Your task to perform on an android device: turn on location history Image 0: 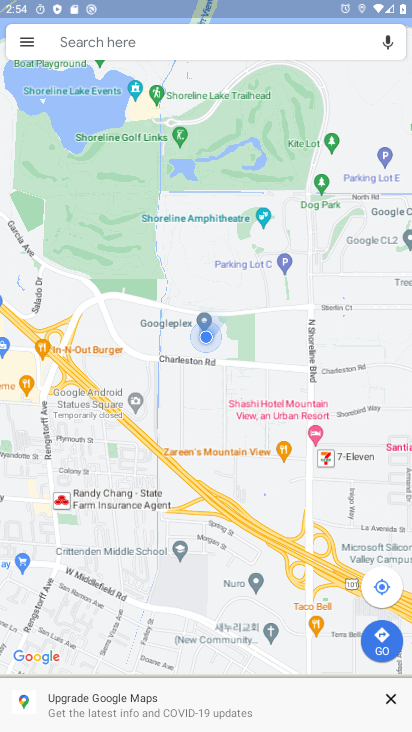
Step 0: press back button
Your task to perform on an android device: turn on location history Image 1: 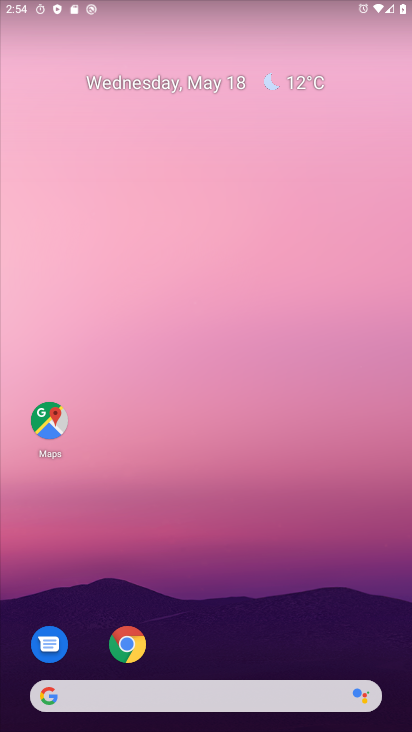
Step 1: drag from (388, 630) to (297, 270)
Your task to perform on an android device: turn on location history Image 2: 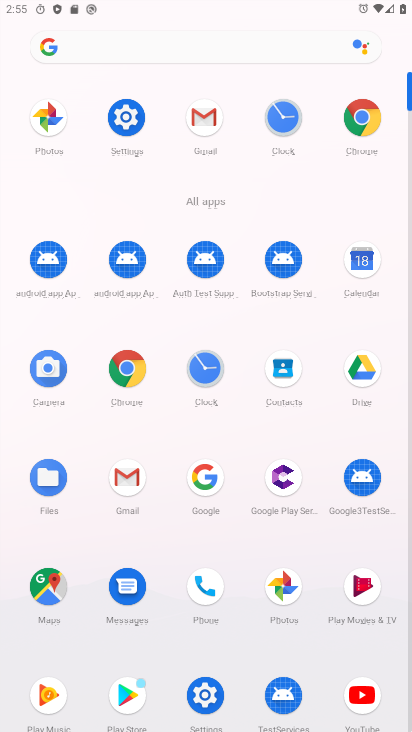
Step 2: click (123, 116)
Your task to perform on an android device: turn on location history Image 3: 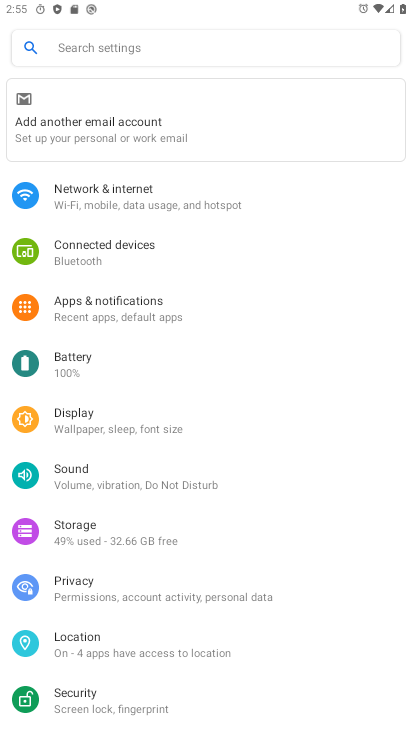
Step 3: click (75, 648)
Your task to perform on an android device: turn on location history Image 4: 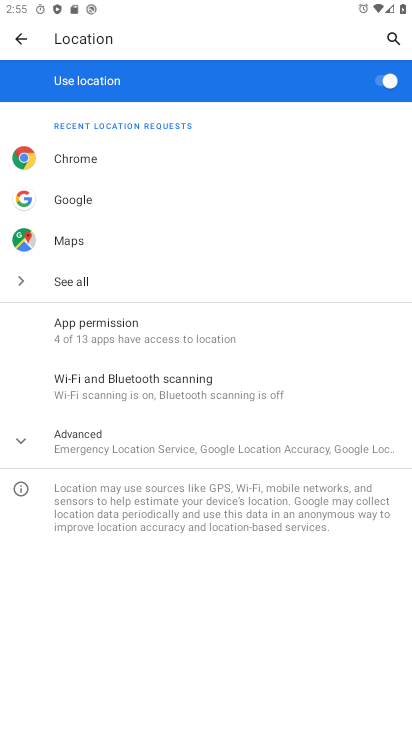
Step 4: click (37, 437)
Your task to perform on an android device: turn on location history Image 5: 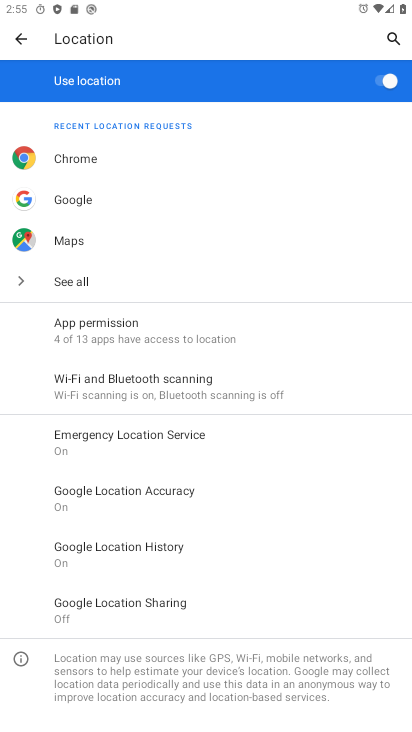
Step 5: click (141, 544)
Your task to perform on an android device: turn on location history Image 6: 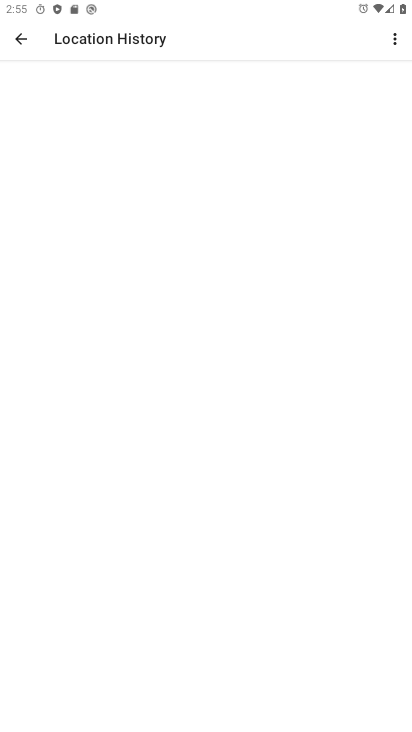
Step 6: task complete